Your task to perform on an android device: Show me the alarms in the clock app Image 0: 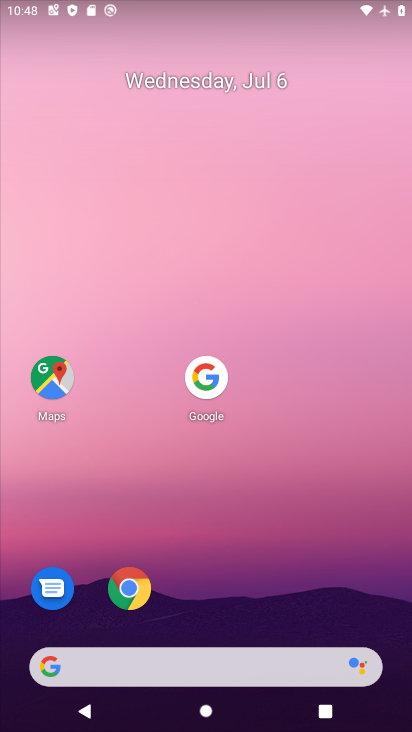
Step 0: drag from (267, 663) to (345, 167)
Your task to perform on an android device: Show me the alarms in the clock app Image 1: 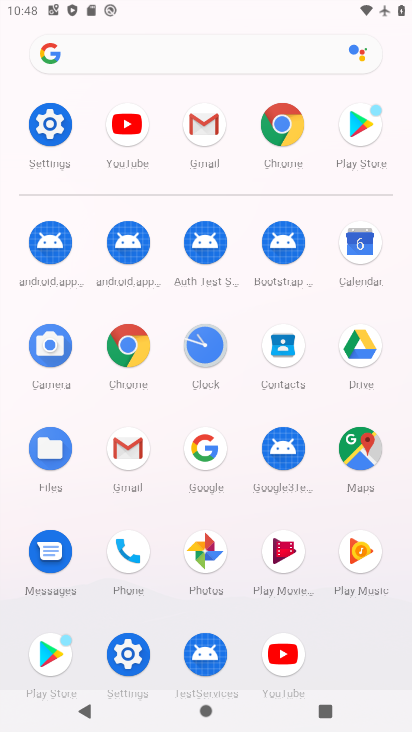
Step 1: click (208, 357)
Your task to perform on an android device: Show me the alarms in the clock app Image 2: 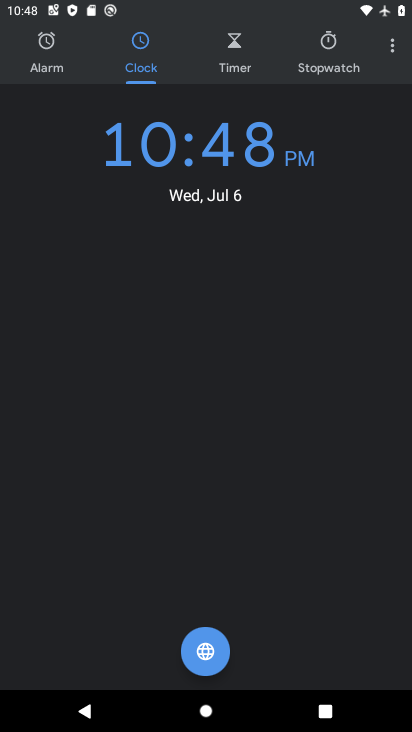
Step 2: click (59, 59)
Your task to perform on an android device: Show me the alarms in the clock app Image 3: 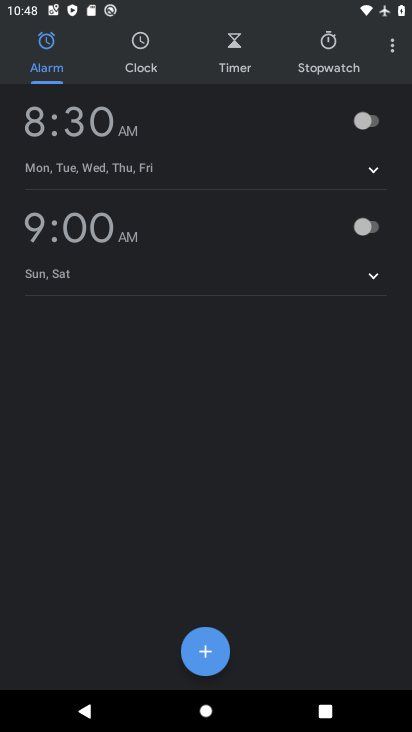
Step 3: task complete